Your task to perform on an android device: turn on the 12-hour format for clock Image 0: 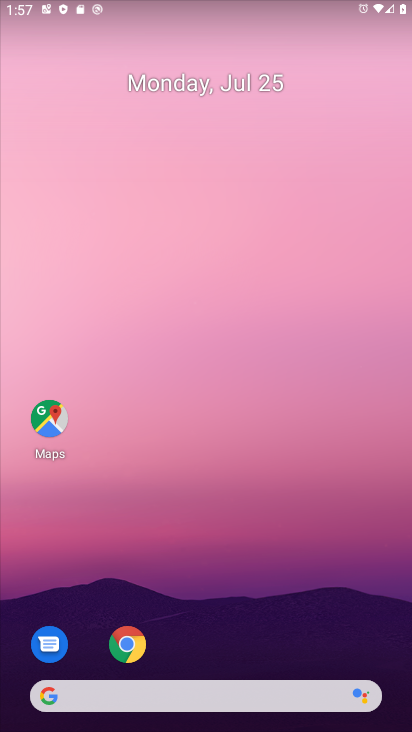
Step 0: drag from (331, 626) to (124, 11)
Your task to perform on an android device: turn on the 12-hour format for clock Image 1: 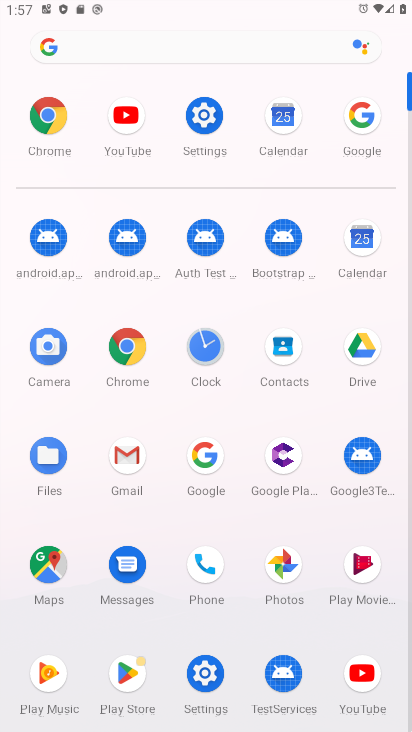
Step 1: click (207, 352)
Your task to perform on an android device: turn on the 12-hour format for clock Image 2: 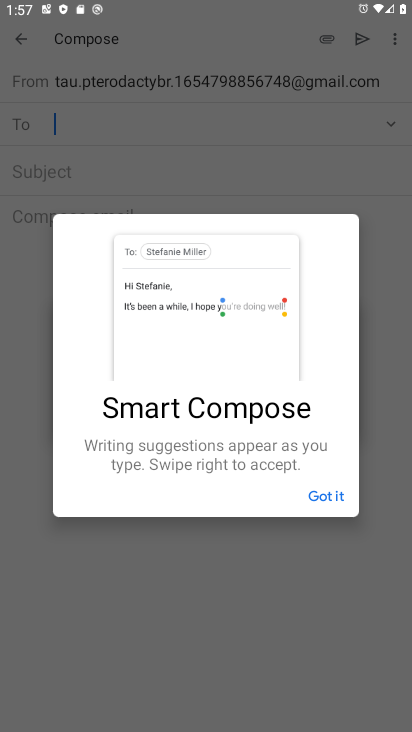
Step 2: press home button
Your task to perform on an android device: turn on the 12-hour format for clock Image 3: 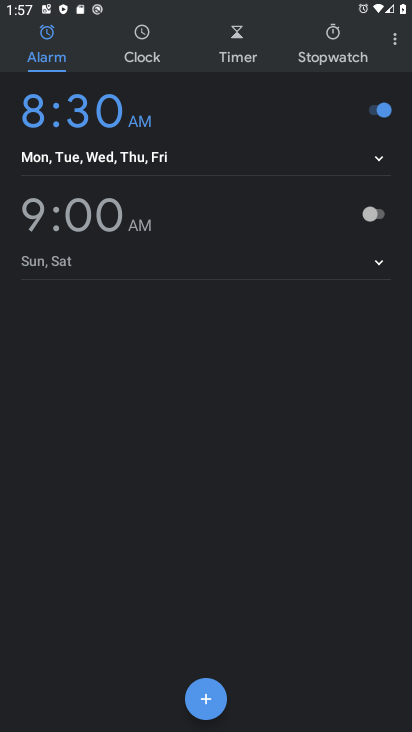
Step 3: click (391, 35)
Your task to perform on an android device: turn on the 12-hour format for clock Image 4: 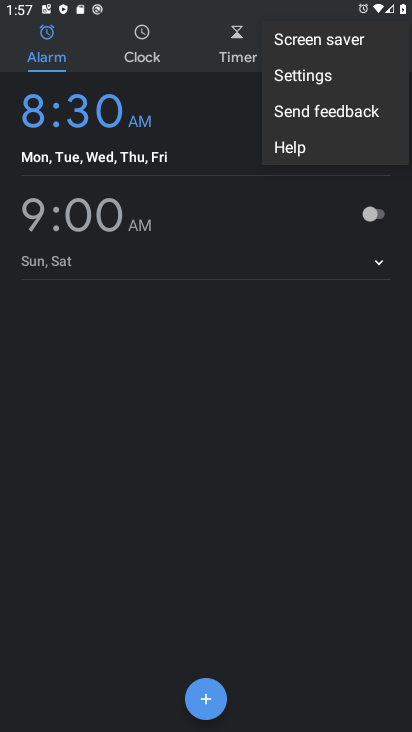
Step 4: click (311, 82)
Your task to perform on an android device: turn on the 12-hour format for clock Image 5: 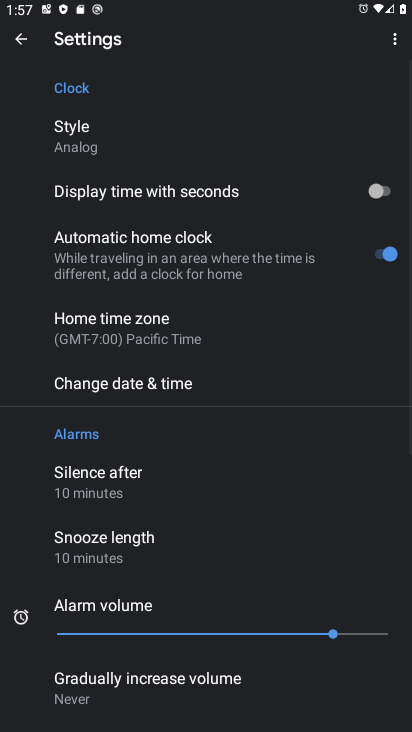
Step 5: click (110, 375)
Your task to perform on an android device: turn on the 12-hour format for clock Image 6: 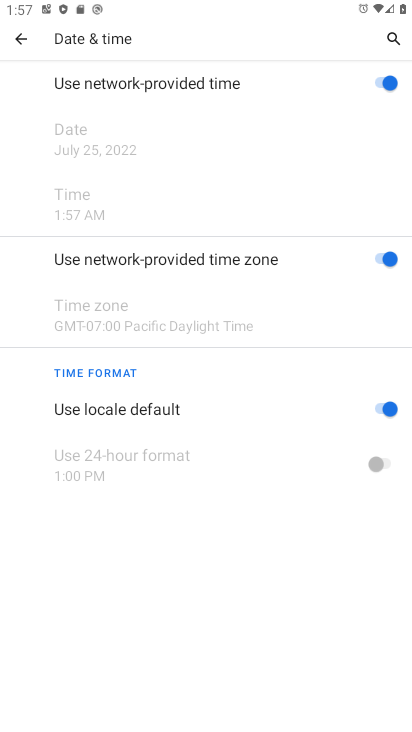
Step 6: task complete